Your task to perform on an android device: turn notification dots off Image 0: 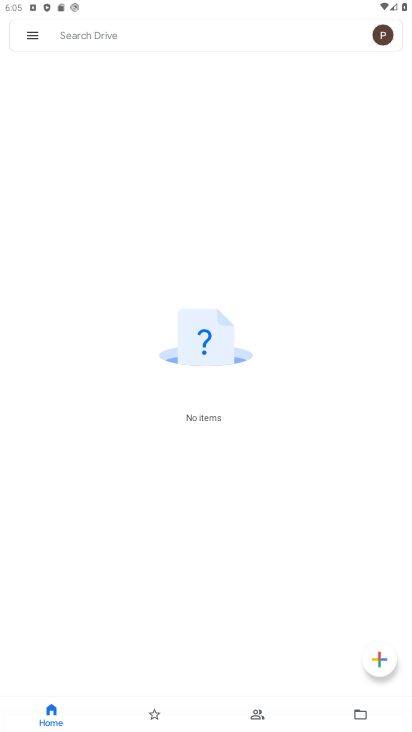
Step 0: press home button
Your task to perform on an android device: turn notification dots off Image 1: 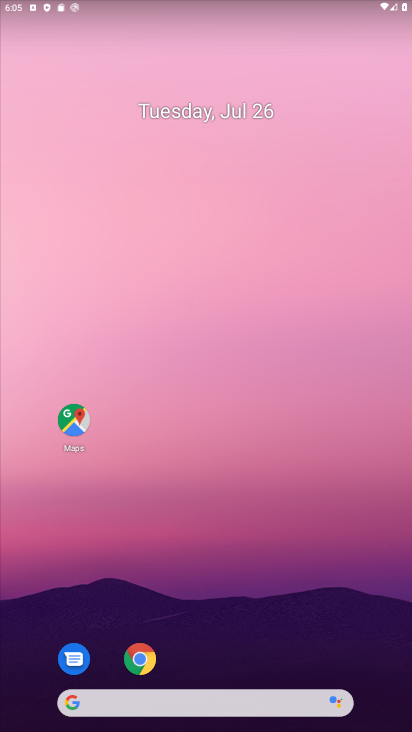
Step 1: drag from (259, 645) to (236, 132)
Your task to perform on an android device: turn notification dots off Image 2: 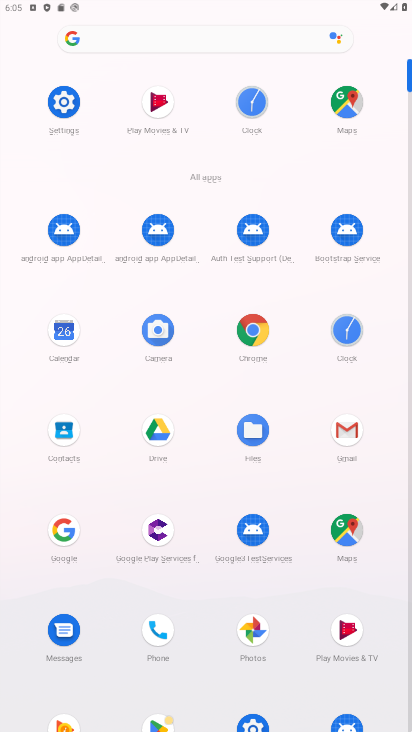
Step 2: click (246, 717)
Your task to perform on an android device: turn notification dots off Image 3: 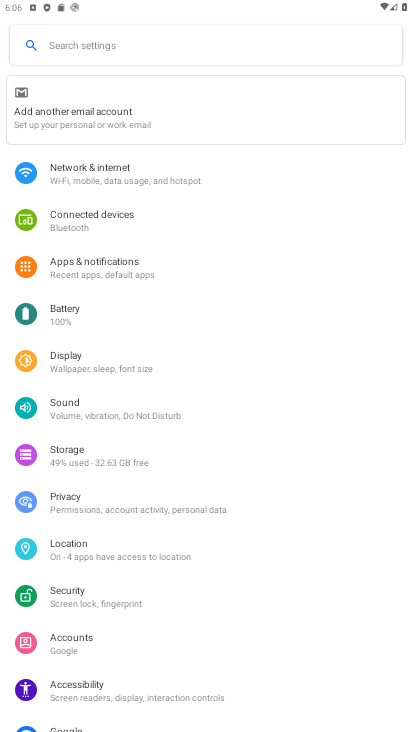
Step 3: task complete